Your task to perform on an android device: Open notification settings Image 0: 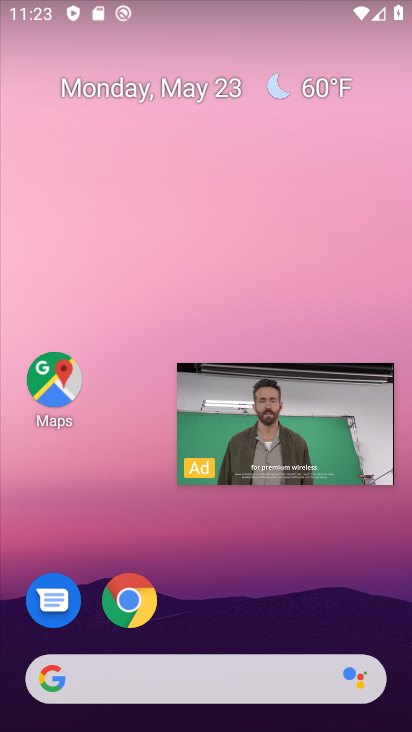
Step 0: click (374, 388)
Your task to perform on an android device: Open notification settings Image 1: 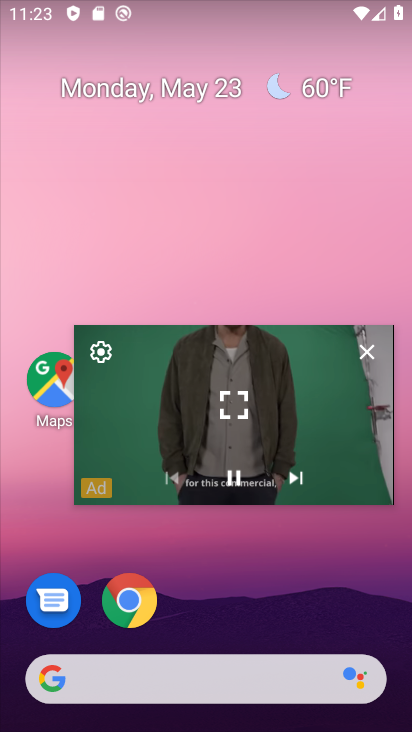
Step 1: click (376, 360)
Your task to perform on an android device: Open notification settings Image 2: 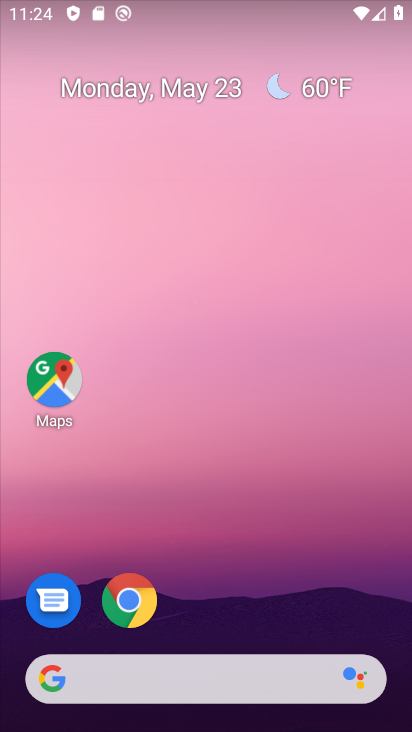
Step 2: drag from (290, 714) to (166, 89)
Your task to perform on an android device: Open notification settings Image 3: 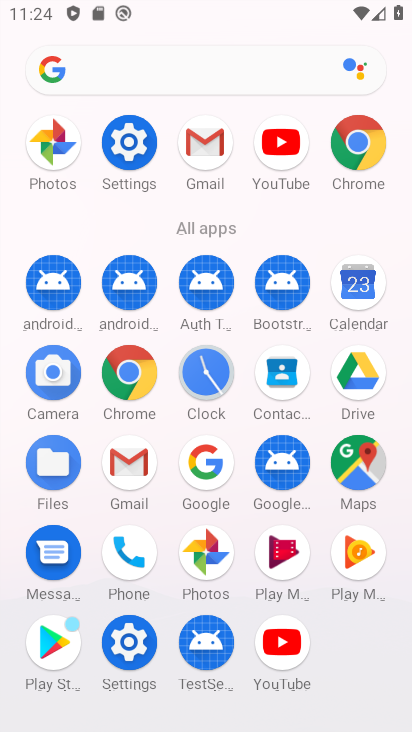
Step 3: click (134, 148)
Your task to perform on an android device: Open notification settings Image 4: 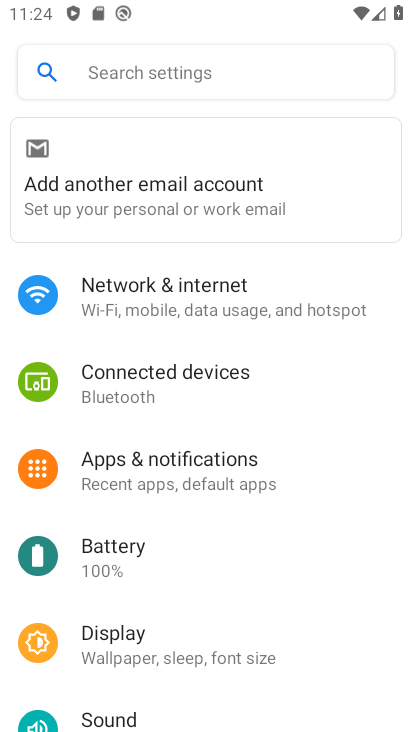
Step 4: click (148, 88)
Your task to perform on an android device: Open notification settings Image 5: 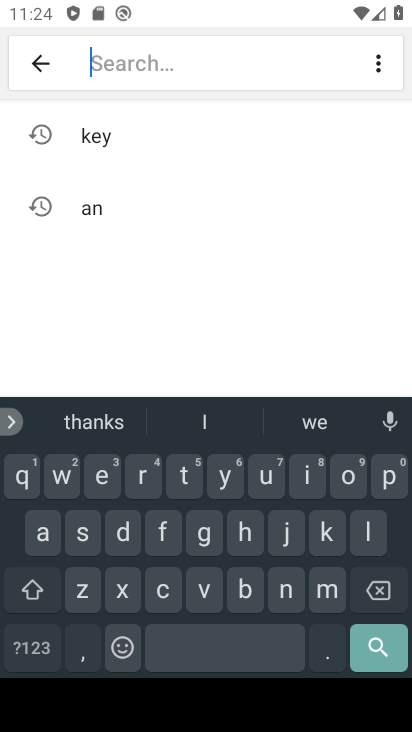
Step 5: click (289, 602)
Your task to perform on an android device: Open notification settings Image 6: 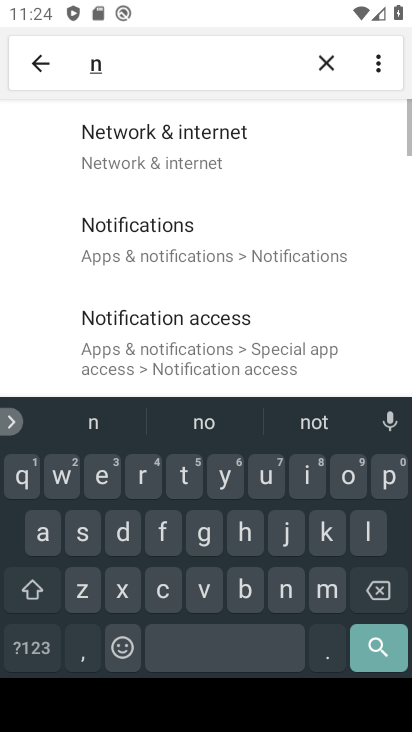
Step 6: click (344, 485)
Your task to perform on an android device: Open notification settings Image 7: 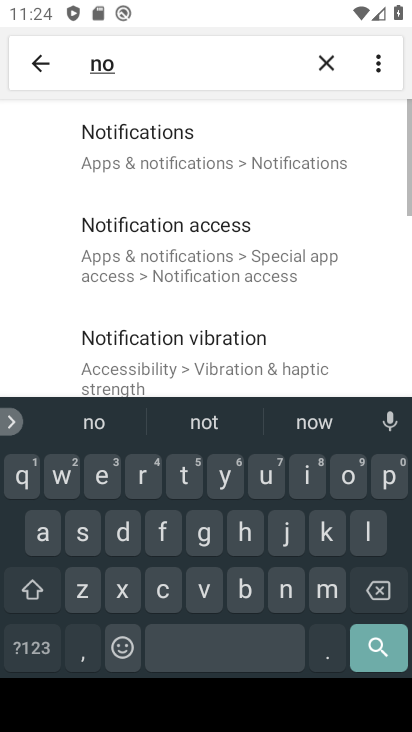
Step 7: click (163, 152)
Your task to perform on an android device: Open notification settings Image 8: 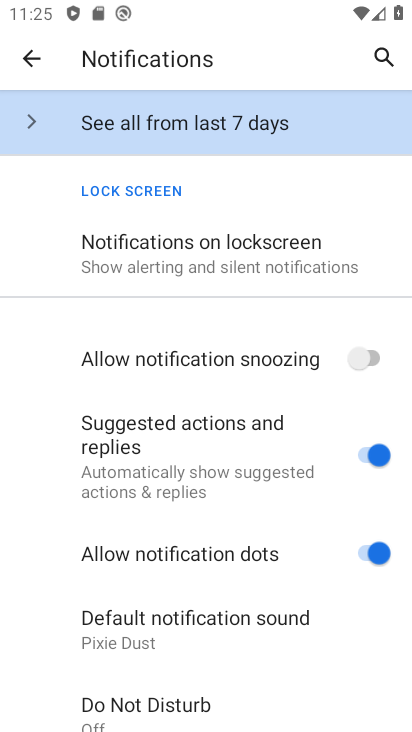
Step 8: click (150, 249)
Your task to perform on an android device: Open notification settings Image 9: 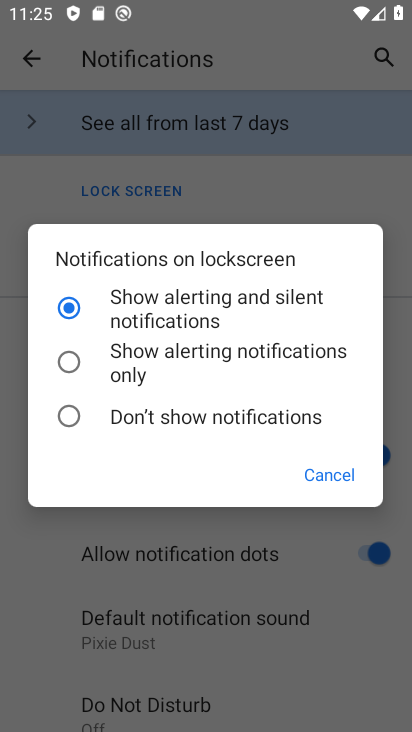
Step 9: task complete